Your task to perform on an android device: make emails show in primary in the gmail app Image 0: 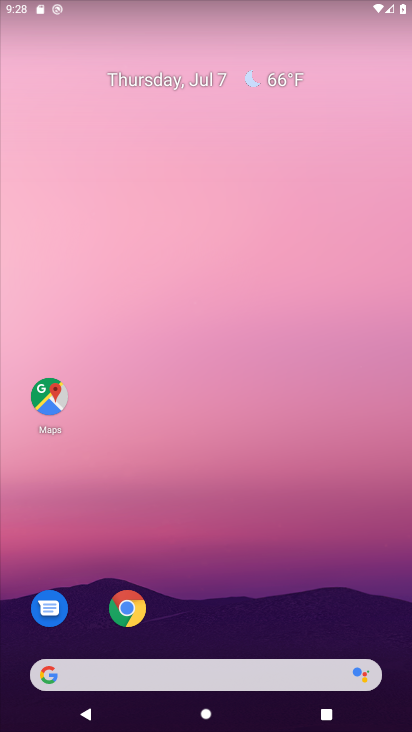
Step 0: drag from (267, 695) to (333, 220)
Your task to perform on an android device: make emails show in primary in the gmail app Image 1: 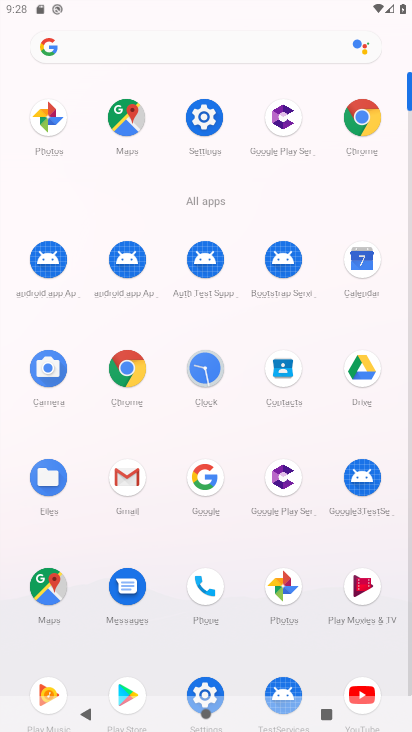
Step 1: click (133, 481)
Your task to perform on an android device: make emails show in primary in the gmail app Image 2: 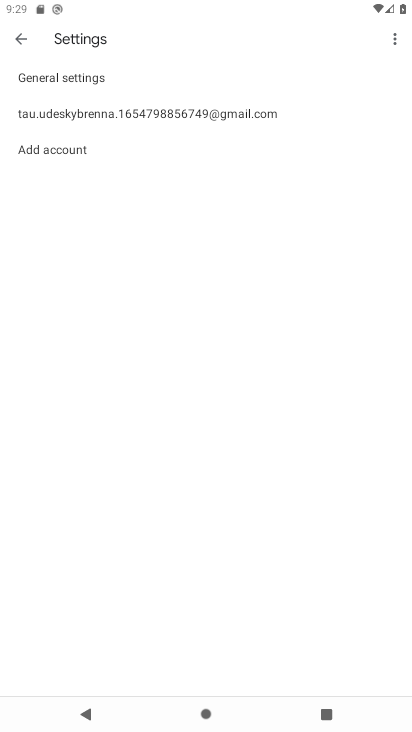
Step 2: click (100, 117)
Your task to perform on an android device: make emails show in primary in the gmail app Image 3: 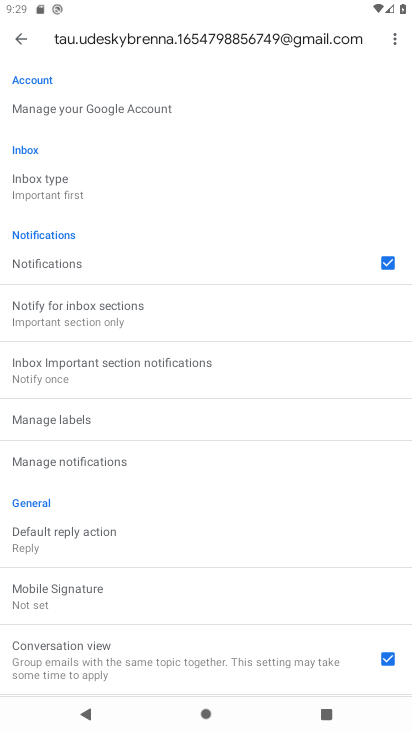
Step 3: click (101, 186)
Your task to perform on an android device: make emails show in primary in the gmail app Image 4: 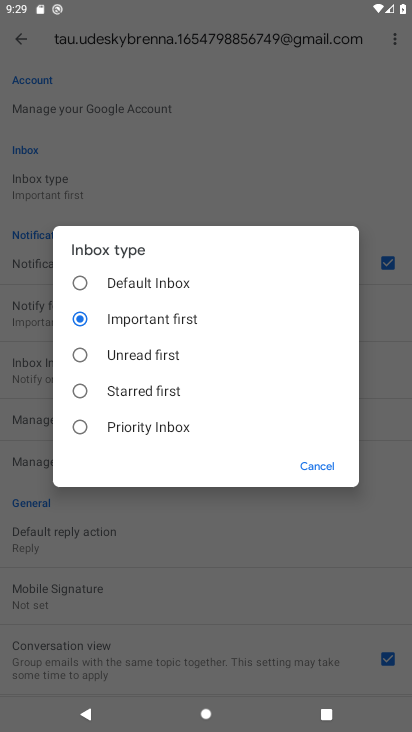
Step 4: click (106, 283)
Your task to perform on an android device: make emails show in primary in the gmail app Image 5: 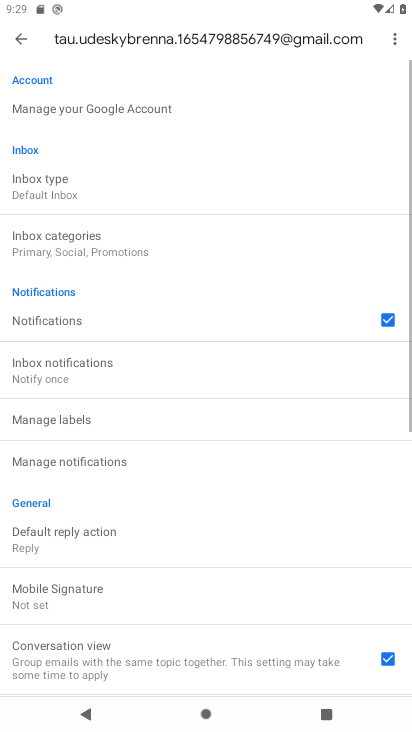
Step 5: click (82, 232)
Your task to perform on an android device: make emails show in primary in the gmail app Image 6: 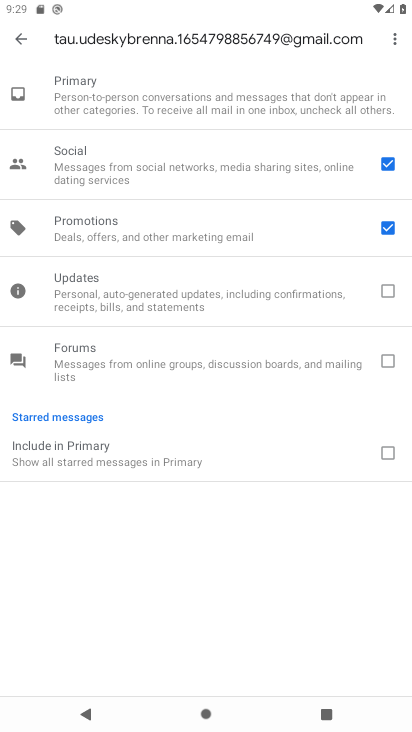
Step 6: click (190, 112)
Your task to perform on an android device: make emails show in primary in the gmail app Image 7: 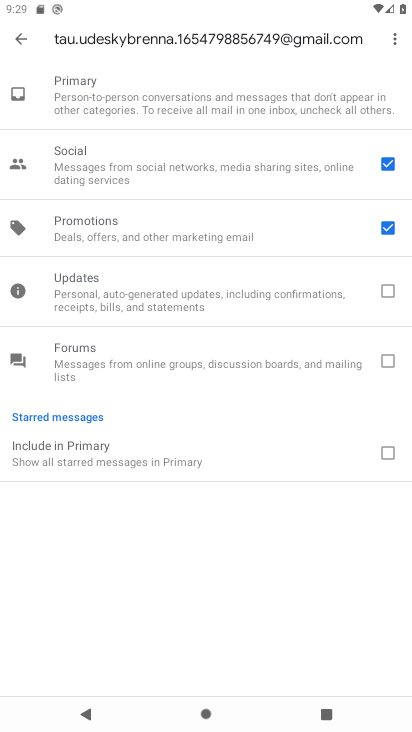
Step 7: task complete